Your task to perform on an android device: open chrome privacy settings Image 0: 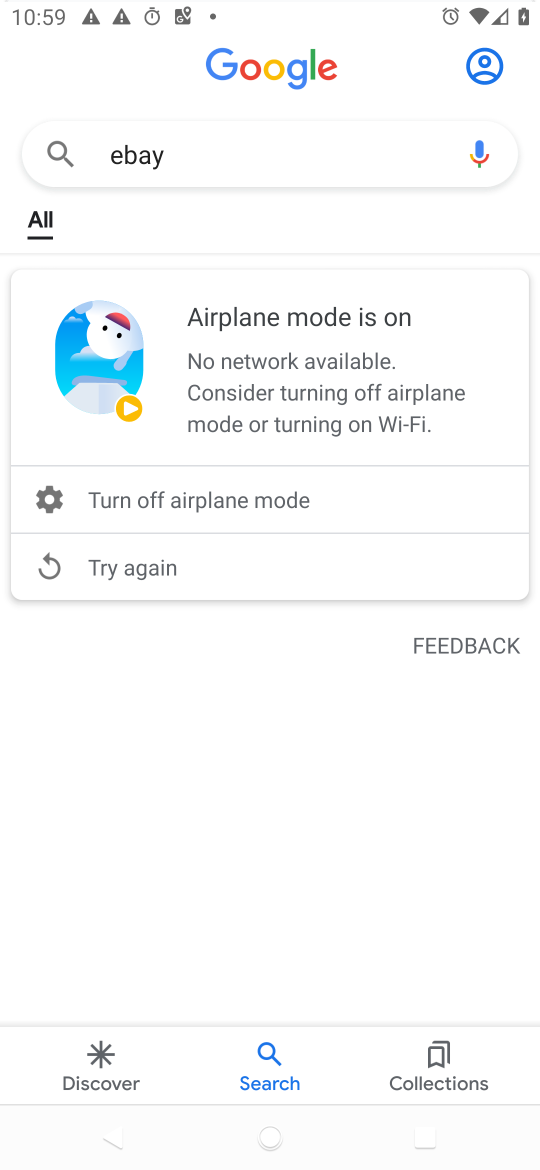
Step 0: press home button
Your task to perform on an android device: open chrome privacy settings Image 1: 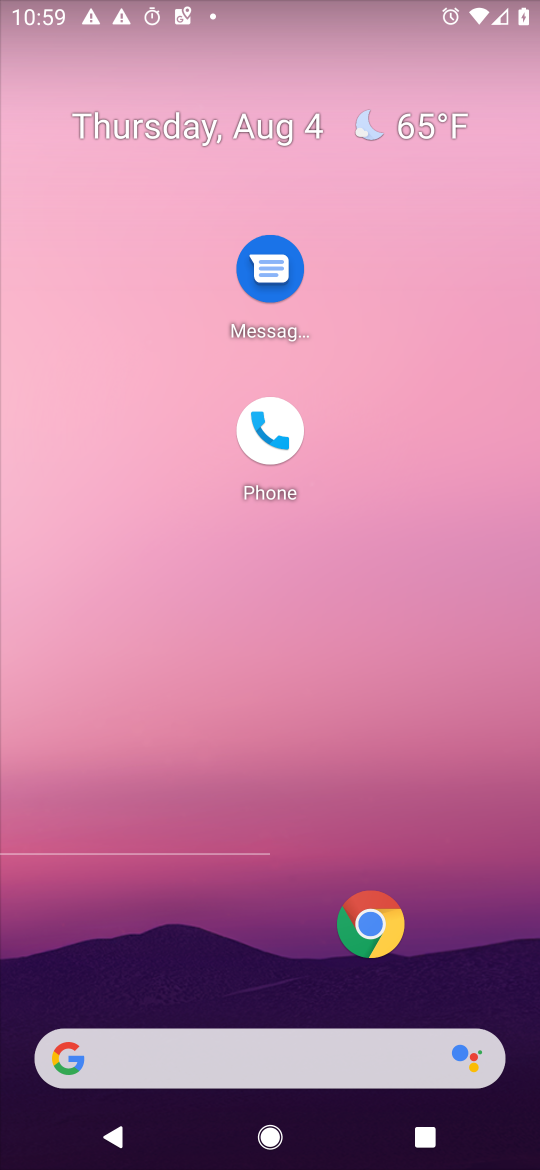
Step 1: drag from (282, 927) to (384, 74)
Your task to perform on an android device: open chrome privacy settings Image 2: 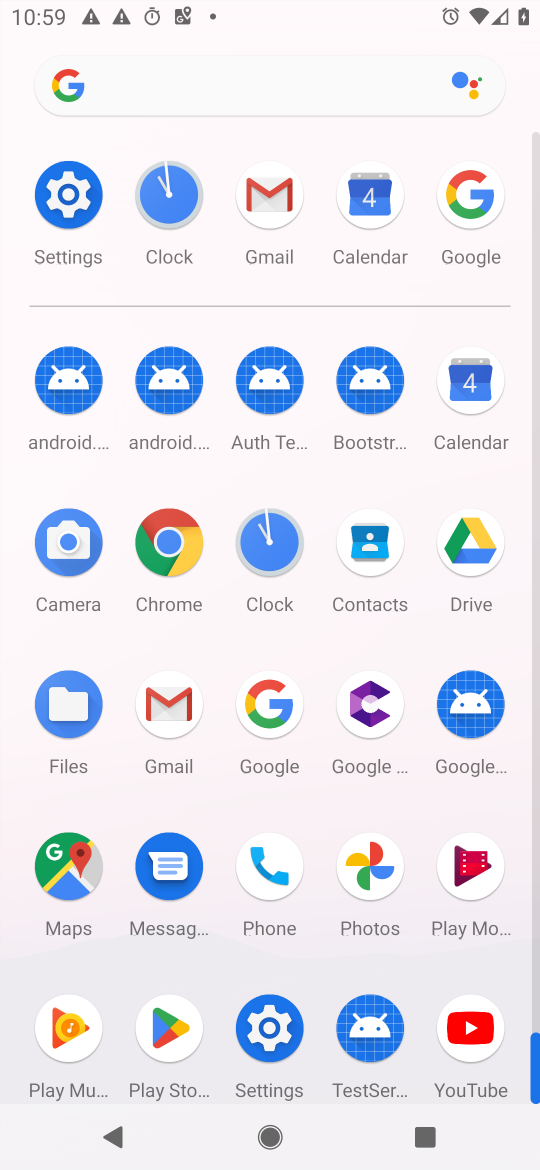
Step 2: click (253, 1013)
Your task to perform on an android device: open chrome privacy settings Image 3: 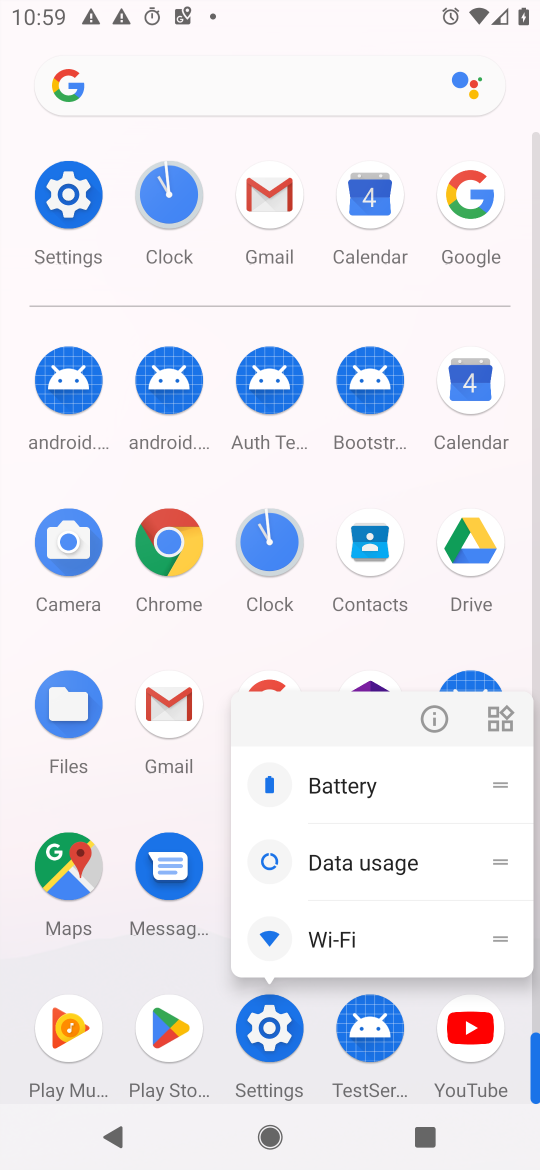
Step 3: click (436, 697)
Your task to perform on an android device: open chrome privacy settings Image 4: 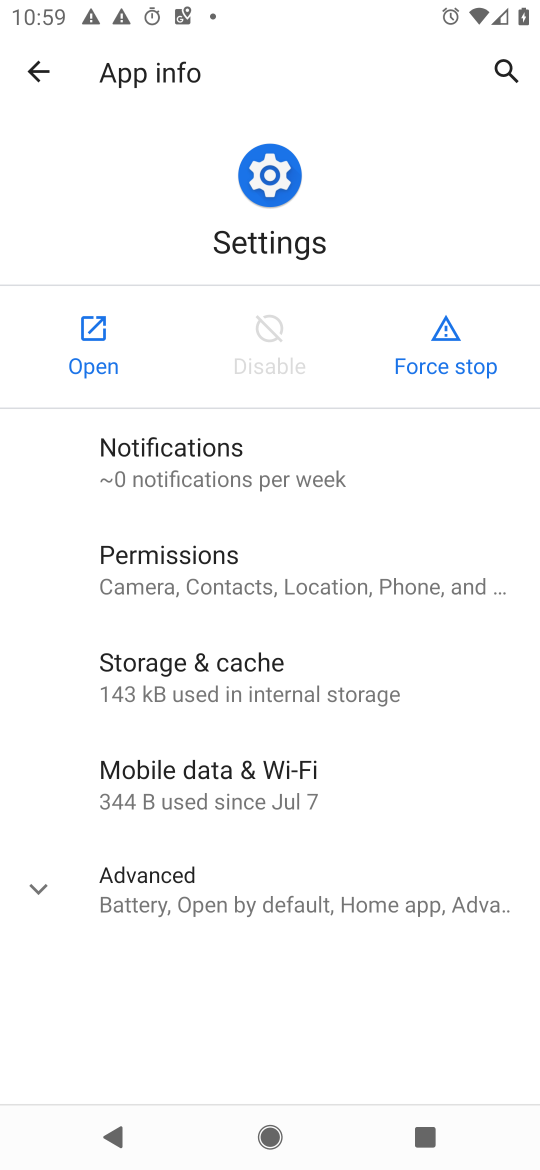
Step 4: click (81, 310)
Your task to perform on an android device: open chrome privacy settings Image 5: 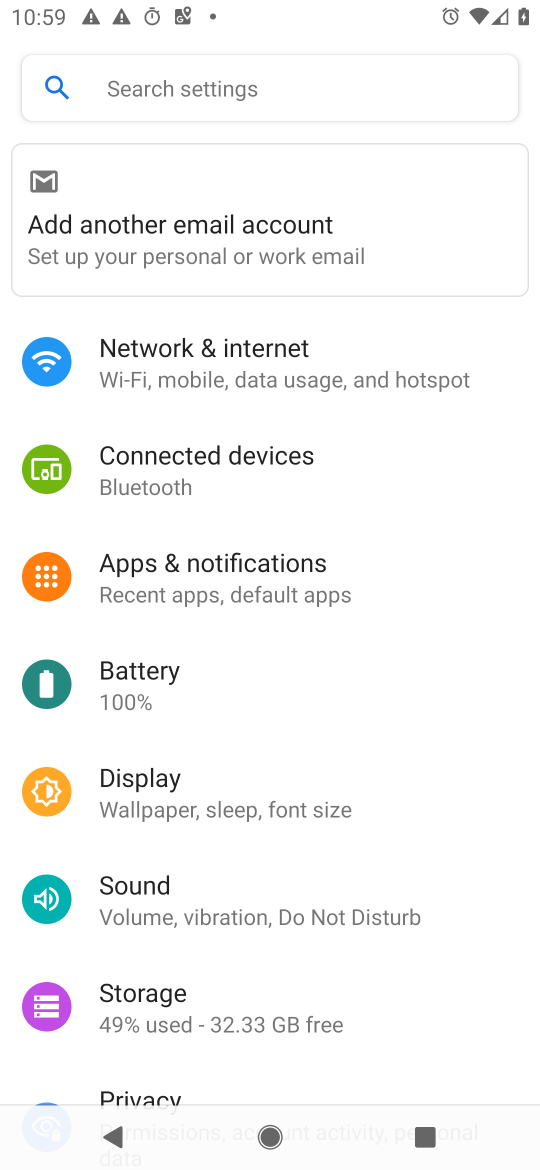
Step 5: press home button
Your task to perform on an android device: open chrome privacy settings Image 6: 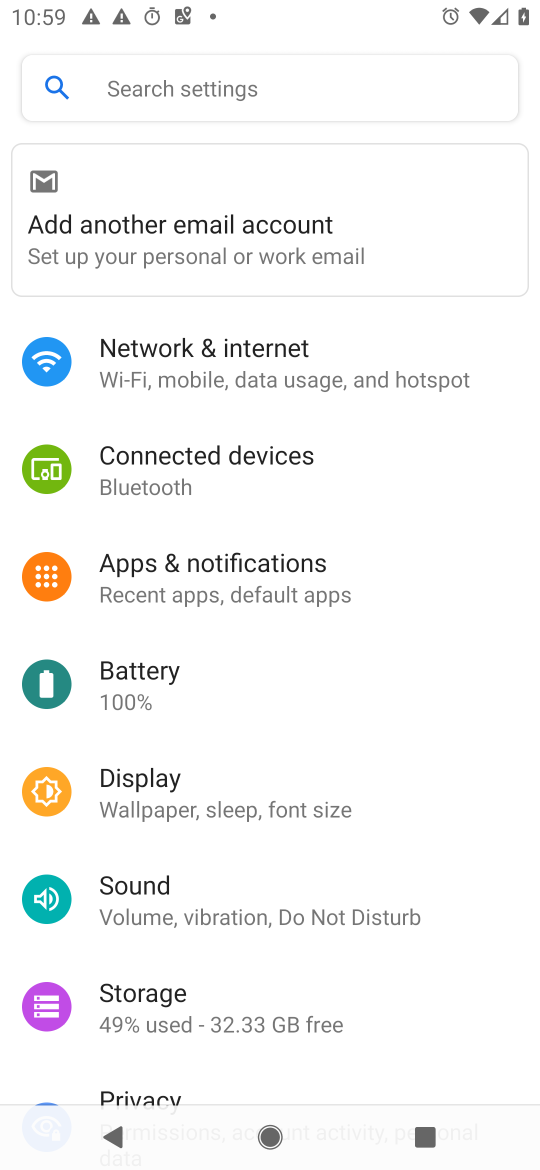
Step 6: drag from (236, 882) to (236, 105)
Your task to perform on an android device: open chrome privacy settings Image 7: 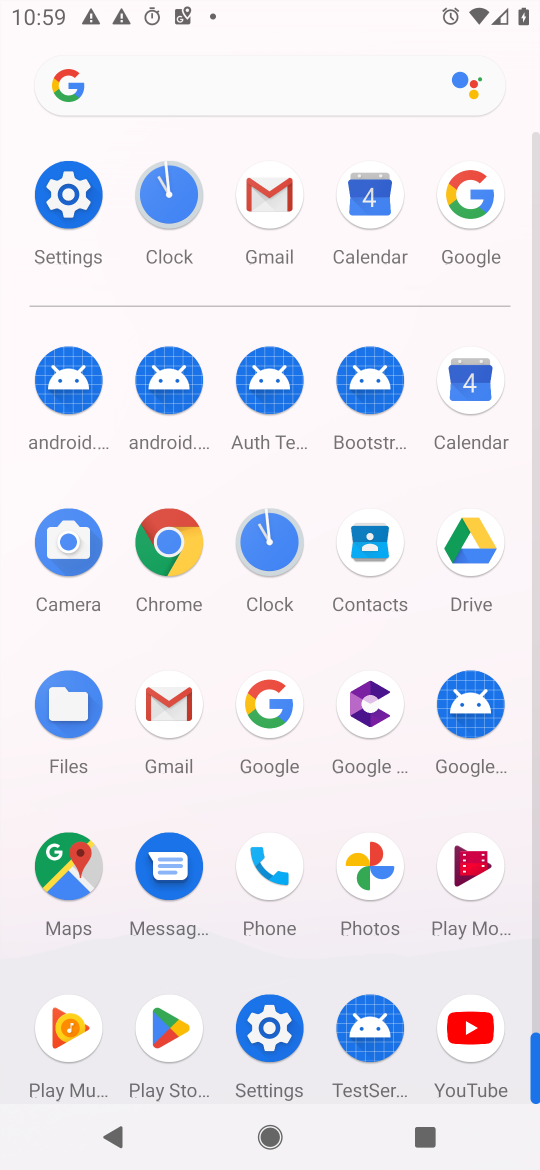
Step 7: click (264, 1022)
Your task to perform on an android device: open chrome privacy settings Image 8: 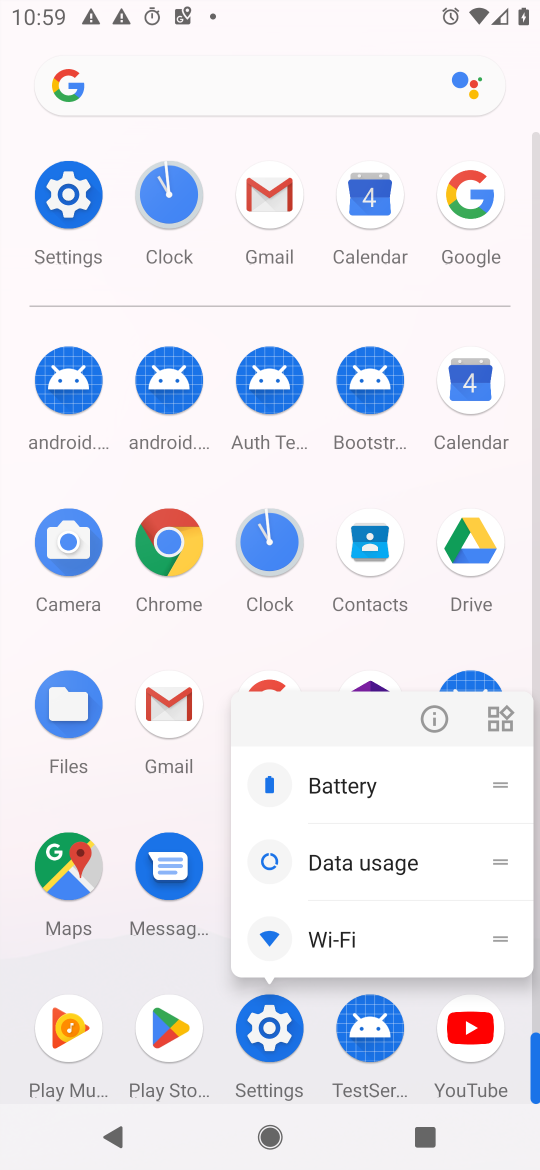
Step 8: click (449, 710)
Your task to perform on an android device: open chrome privacy settings Image 9: 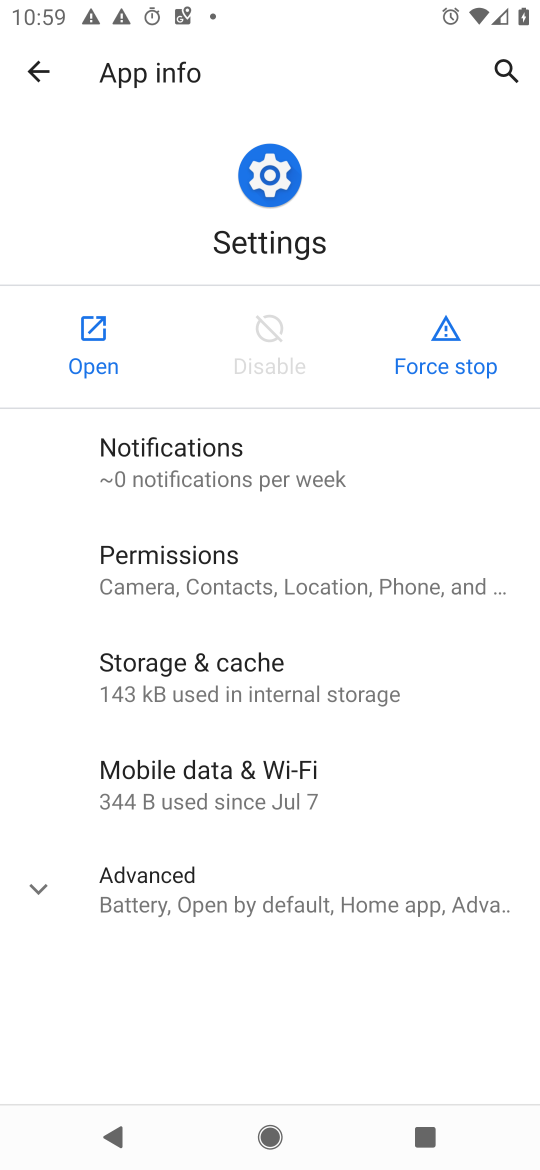
Step 9: click (95, 311)
Your task to perform on an android device: open chrome privacy settings Image 10: 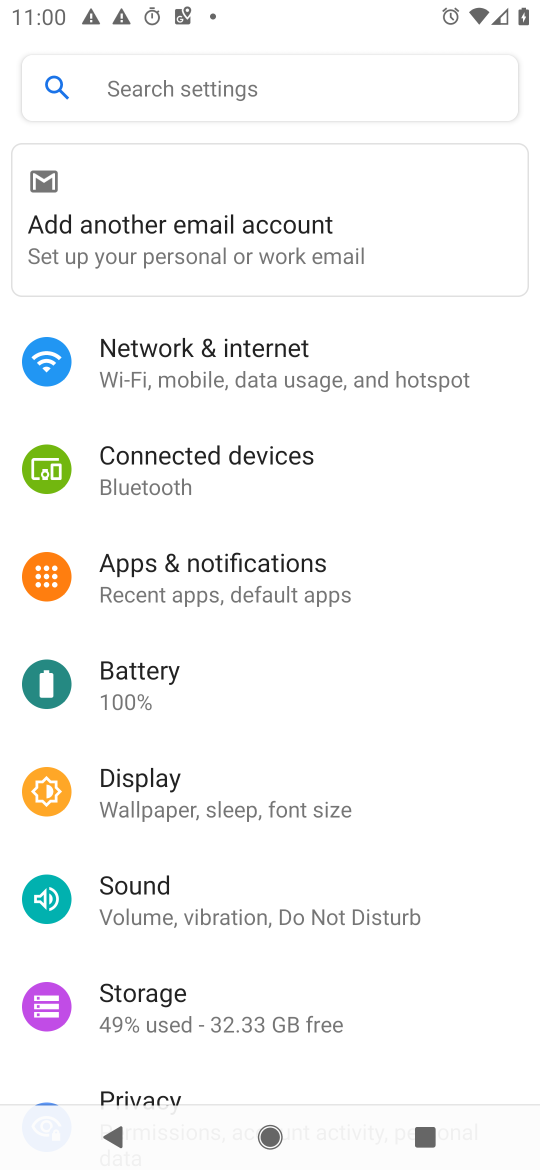
Step 10: press home button
Your task to perform on an android device: open chrome privacy settings Image 11: 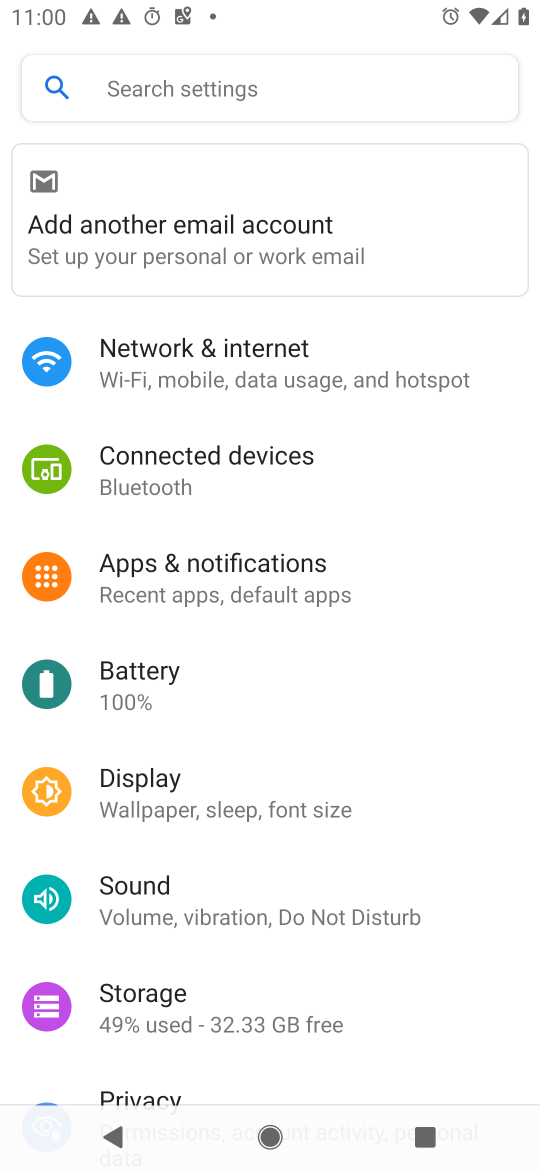
Step 11: drag from (270, 792) to (281, 171)
Your task to perform on an android device: open chrome privacy settings Image 12: 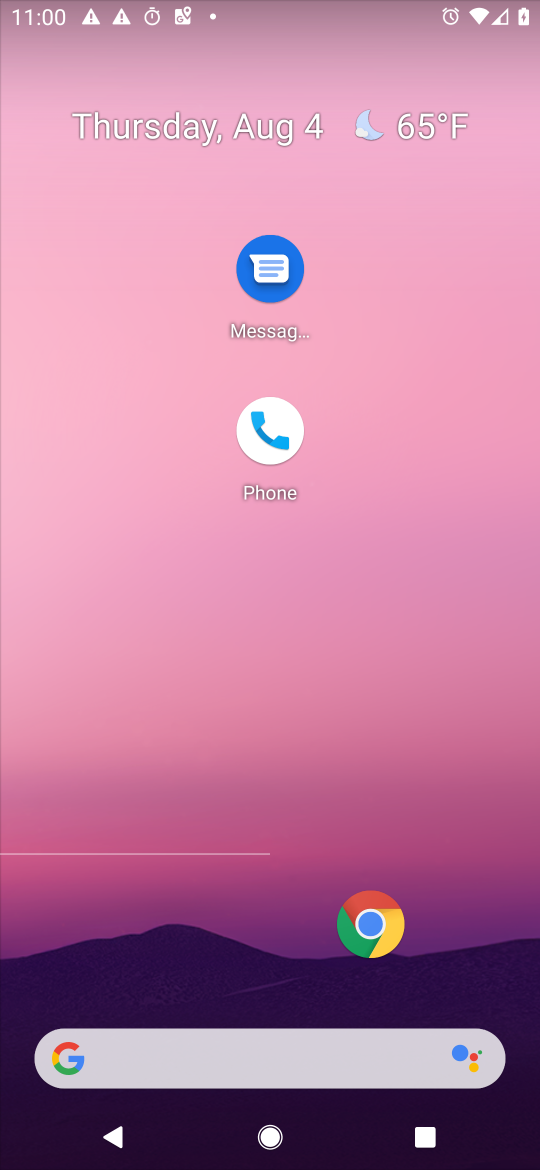
Step 12: click (374, 913)
Your task to perform on an android device: open chrome privacy settings Image 13: 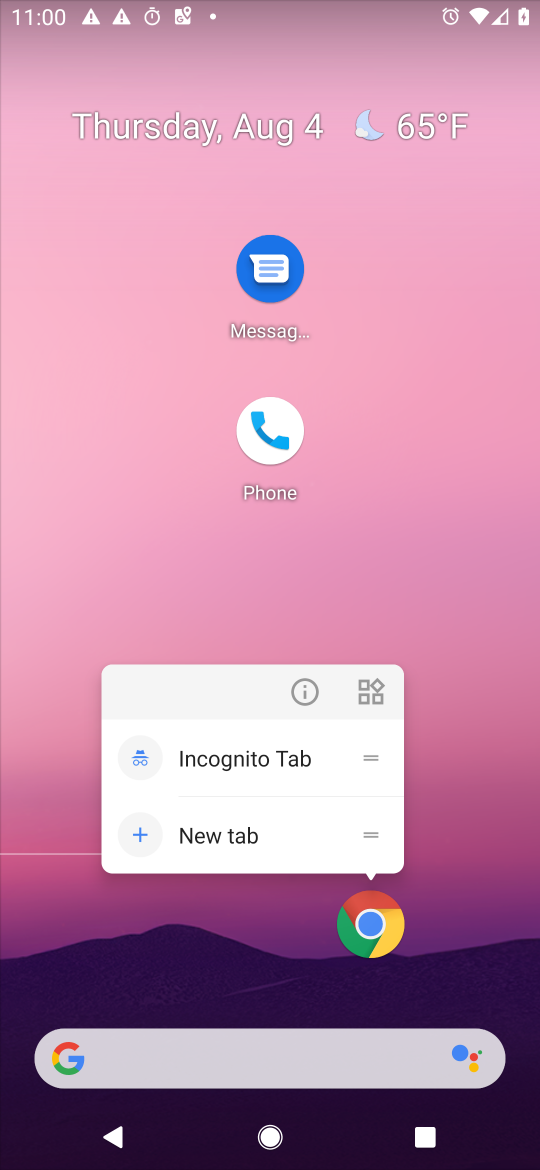
Step 13: click (308, 697)
Your task to perform on an android device: open chrome privacy settings Image 14: 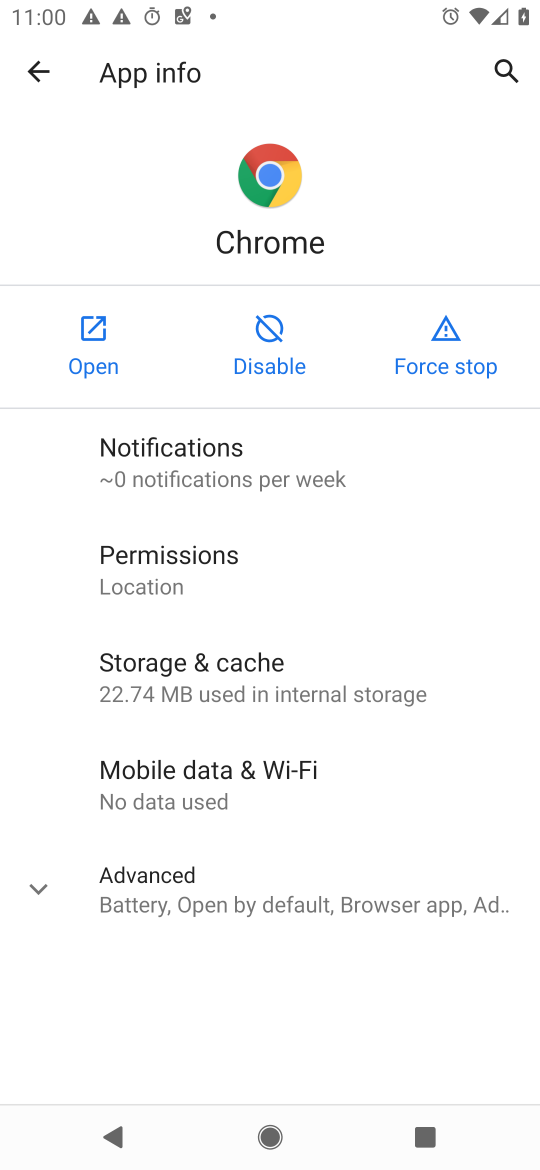
Step 14: click (112, 365)
Your task to perform on an android device: open chrome privacy settings Image 15: 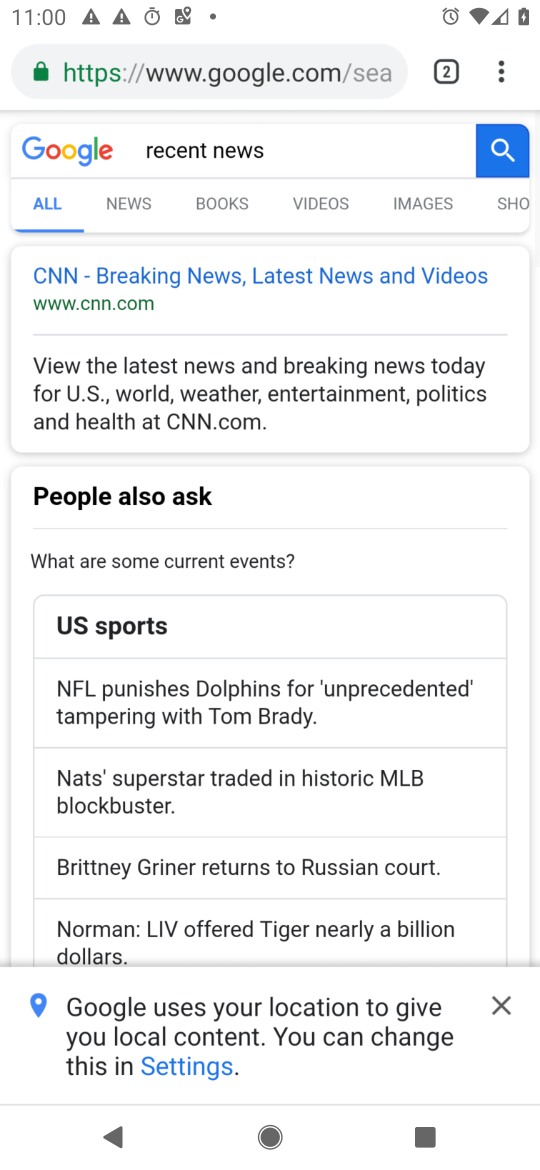
Step 15: drag from (496, 65) to (249, 792)
Your task to perform on an android device: open chrome privacy settings Image 16: 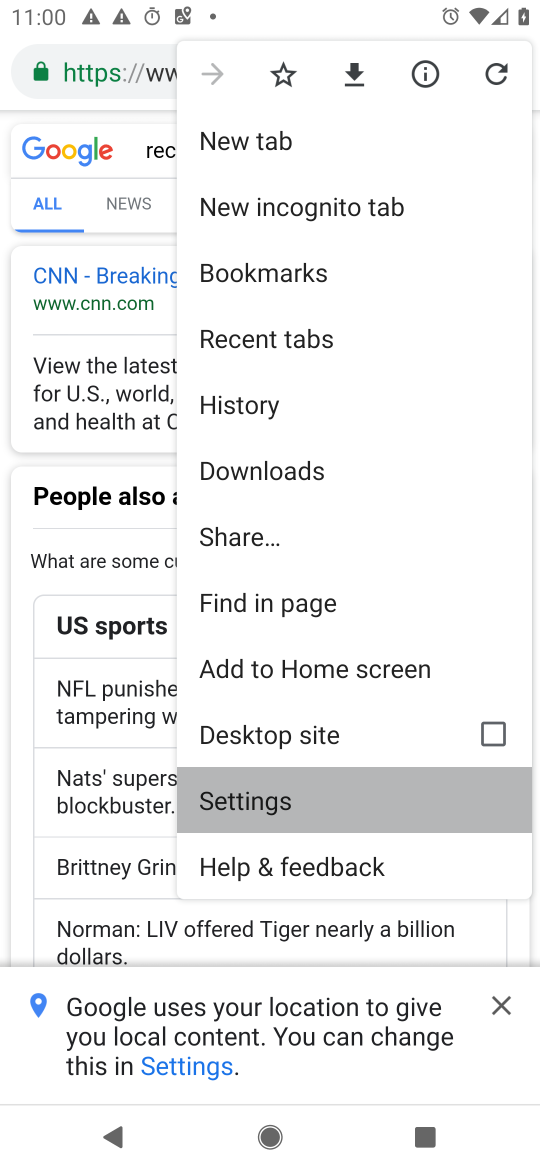
Step 16: click (249, 792)
Your task to perform on an android device: open chrome privacy settings Image 17: 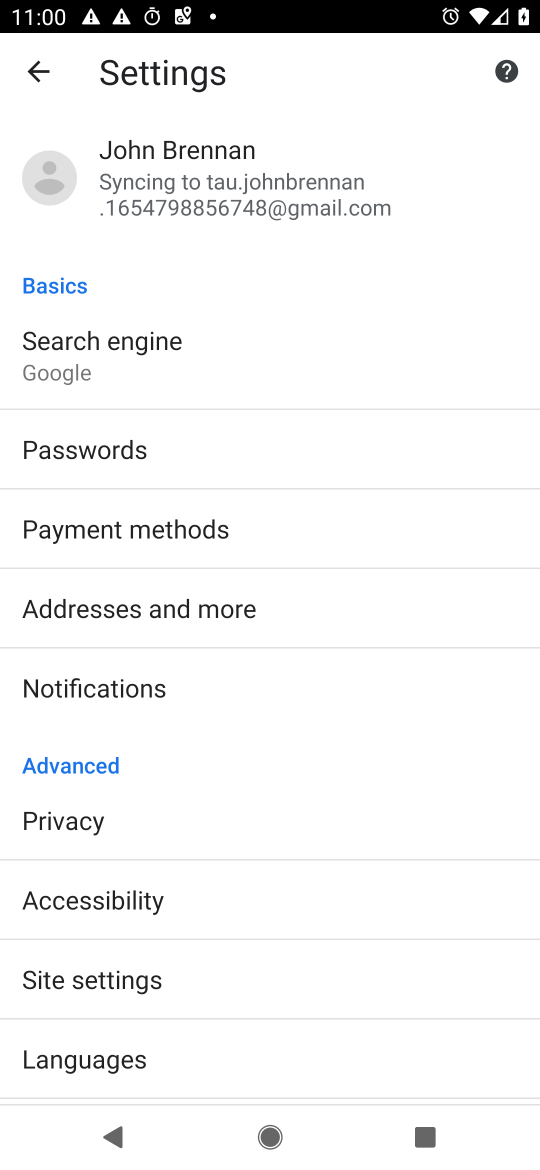
Step 17: drag from (180, 760) to (214, 589)
Your task to perform on an android device: open chrome privacy settings Image 18: 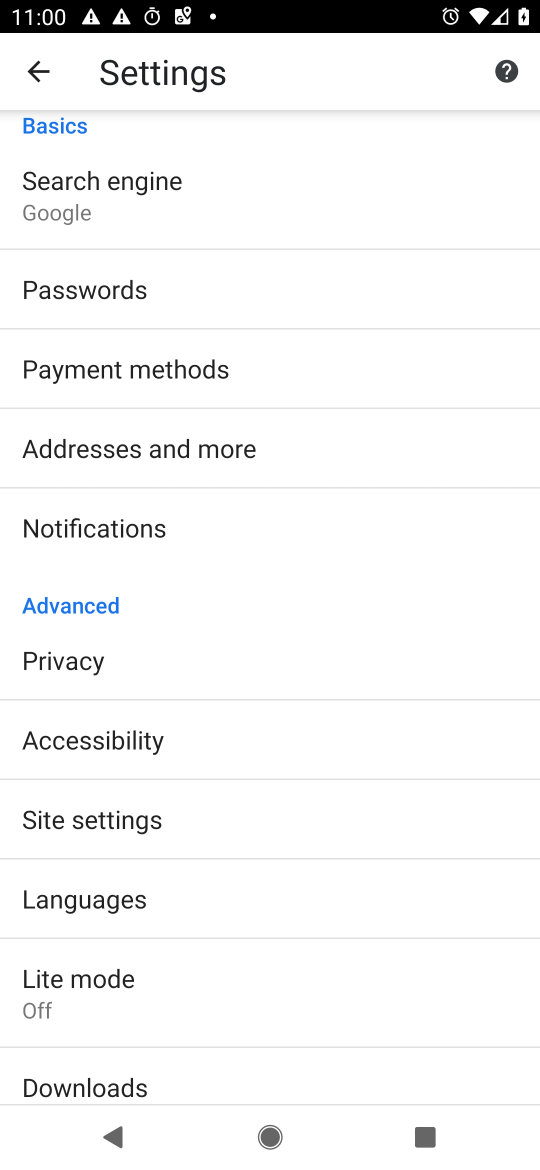
Step 18: click (123, 653)
Your task to perform on an android device: open chrome privacy settings Image 19: 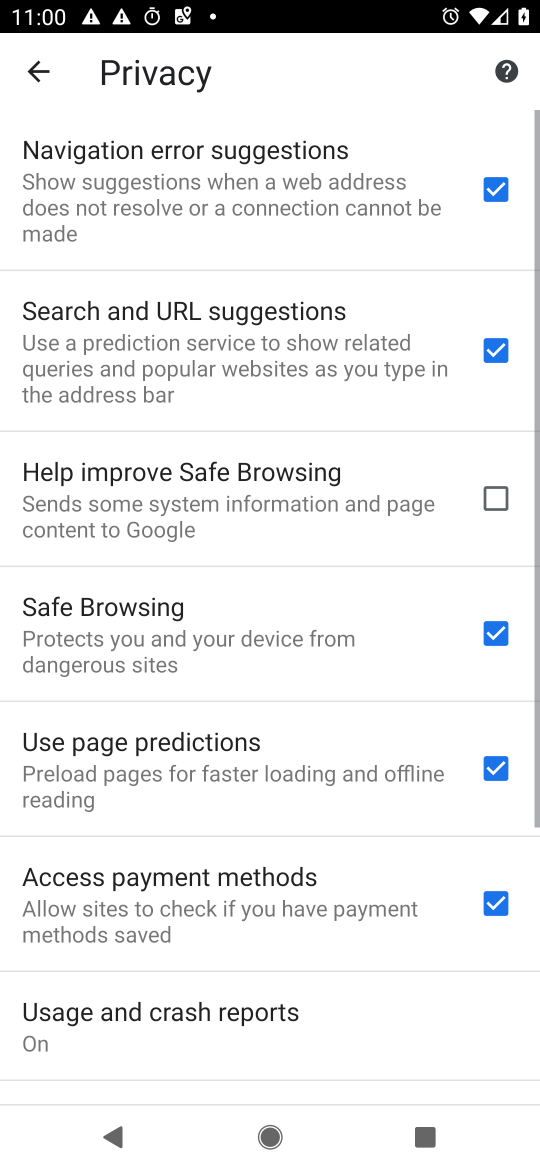
Step 19: task complete